Your task to perform on an android device: allow cookies in the chrome app Image 0: 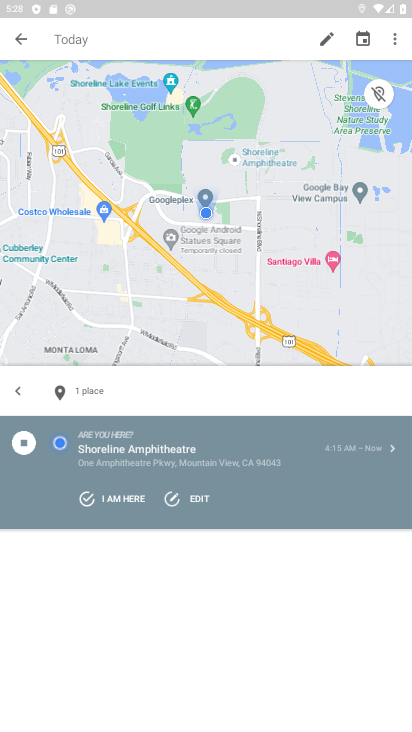
Step 0: press home button
Your task to perform on an android device: allow cookies in the chrome app Image 1: 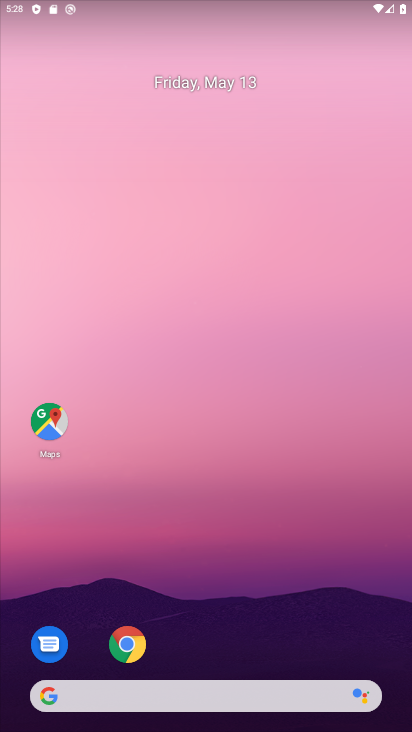
Step 1: click (135, 643)
Your task to perform on an android device: allow cookies in the chrome app Image 2: 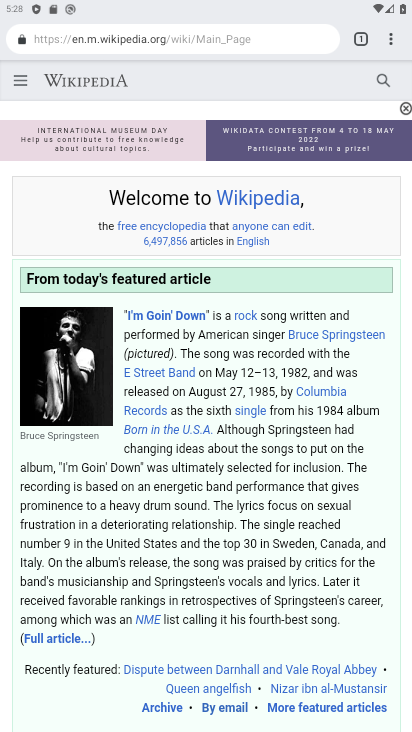
Step 2: click (394, 38)
Your task to perform on an android device: allow cookies in the chrome app Image 3: 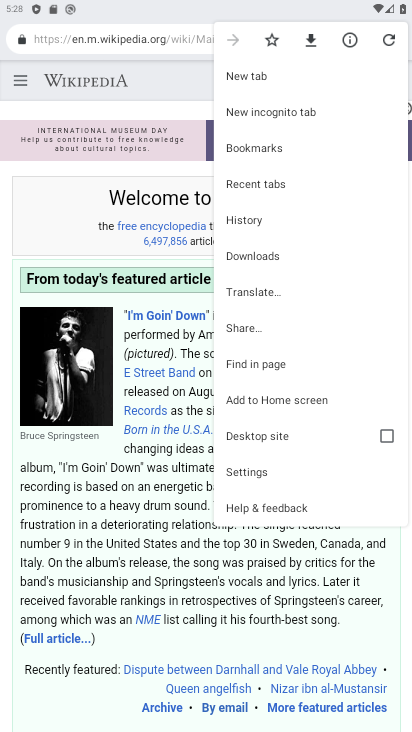
Step 3: click (256, 471)
Your task to perform on an android device: allow cookies in the chrome app Image 4: 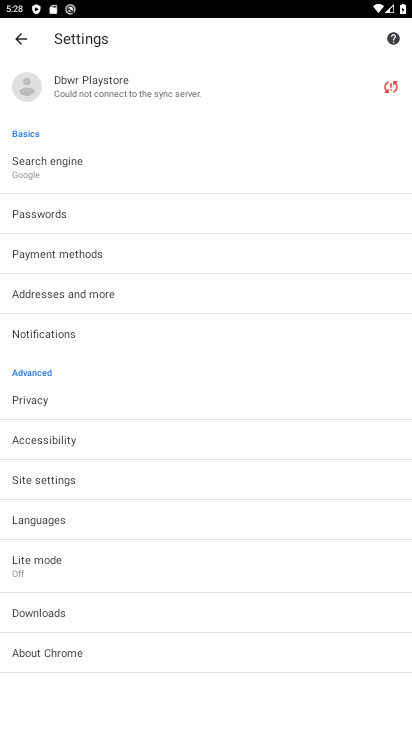
Step 4: click (60, 475)
Your task to perform on an android device: allow cookies in the chrome app Image 5: 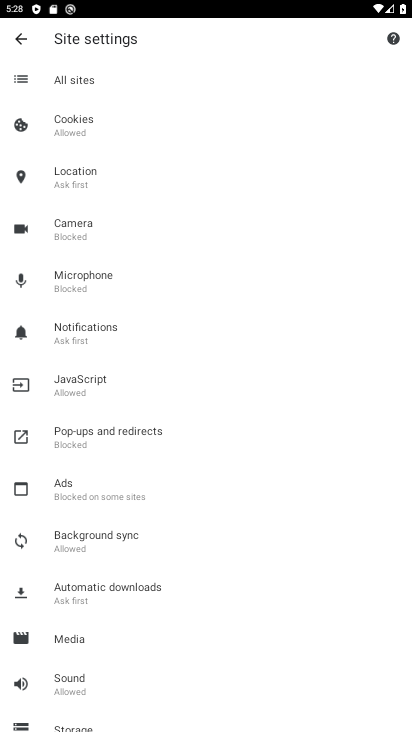
Step 5: click (88, 131)
Your task to perform on an android device: allow cookies in the chrome app Image 6: 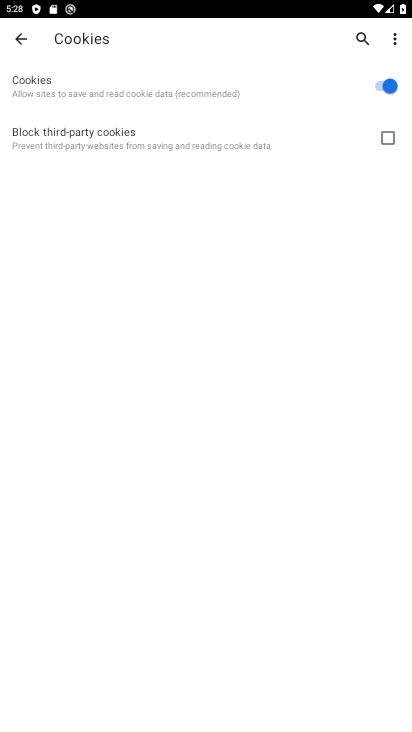
Step 6: task complete